Your task to perform on an android device: toggle wifi Image 0: 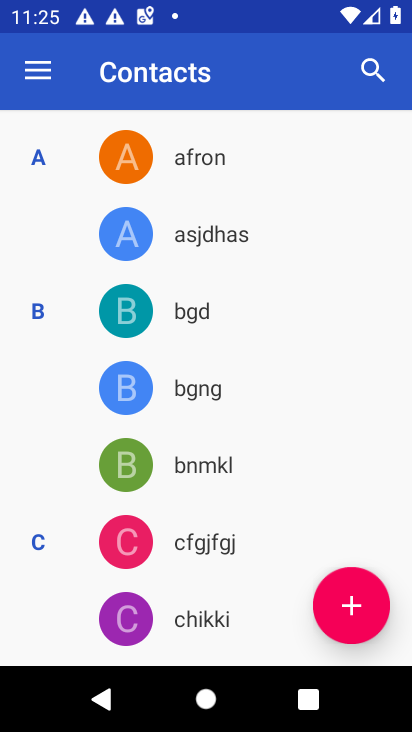
Step 0: press home button
Your task to perform on an android device: toggle wifi Image 1: 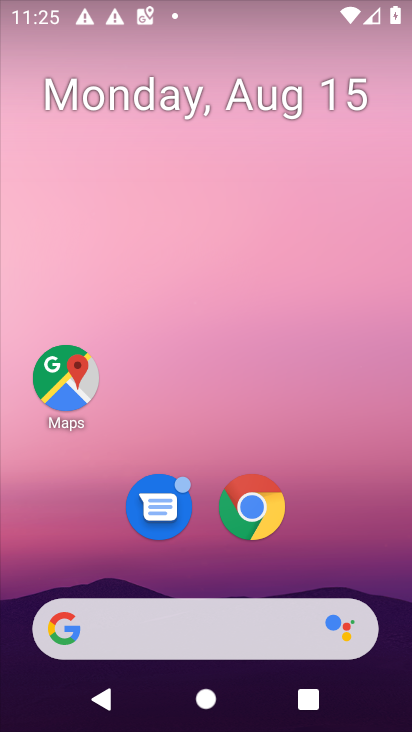
Step 1: drag from (201, 574) to (190, 6)
Your task to perform on an android device: toggle wifi Image 2: 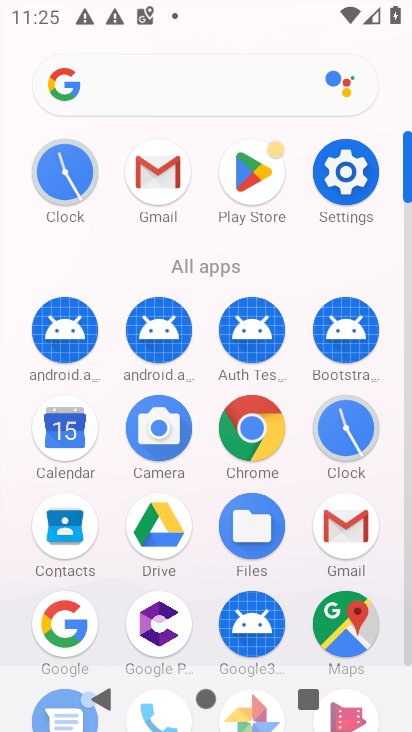
Step 2: click (346, 169)
Your task to perform on an android device: toggle wifi Image 3: 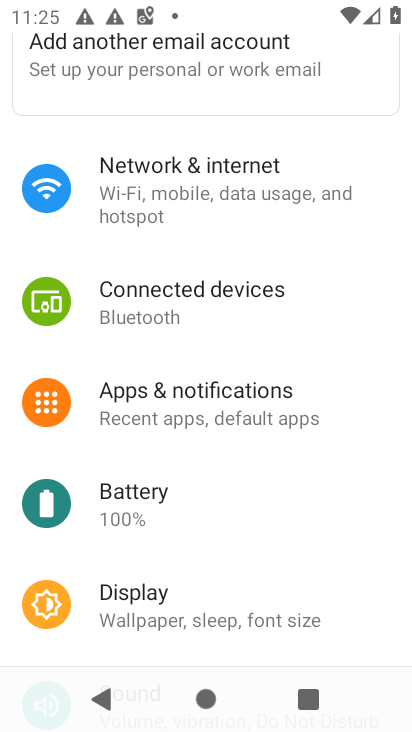
Step 3: click (210, 163)
Your task to perform on an android device: toggle wifi Image 4: 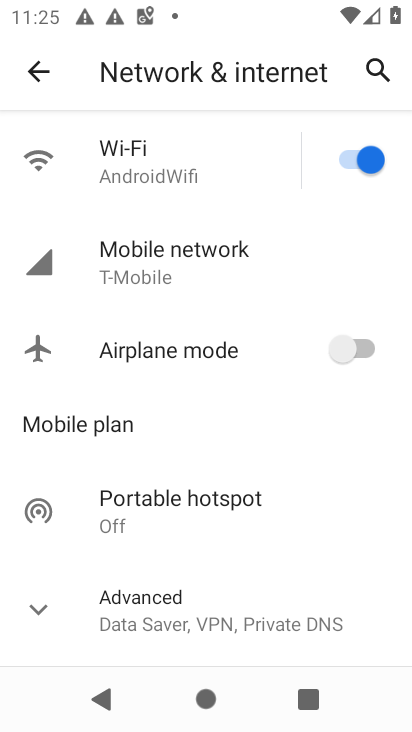
Step 4: click (362, 157)
Your task to perform on an android device: toggle wifi Image 5: 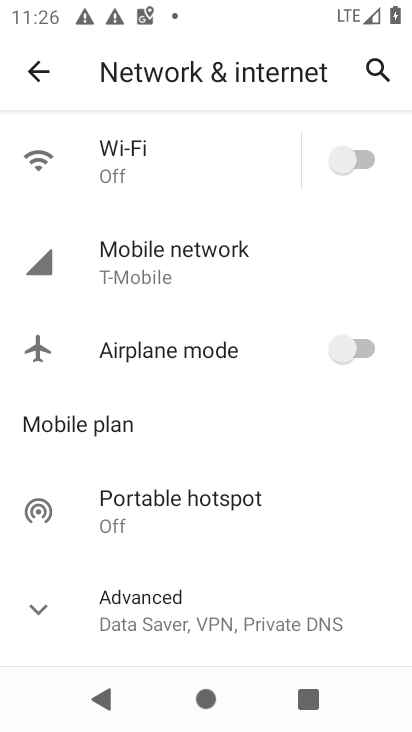
Step 5: task complete